Your task to perform on an android device: Open the calendar app, open the side menu, and click the "Day" option Image 0: 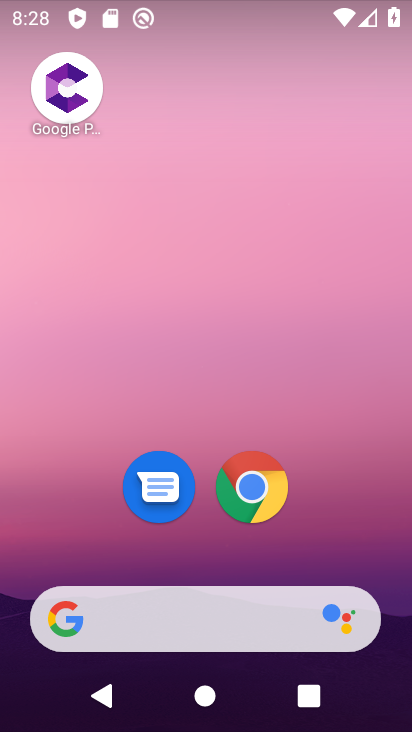
Step 0: drag from (230, 623) to (259, 199)
Your task to perform on an android device: Open the calendar app, open the side menu, and click the "Day" option Image 1: 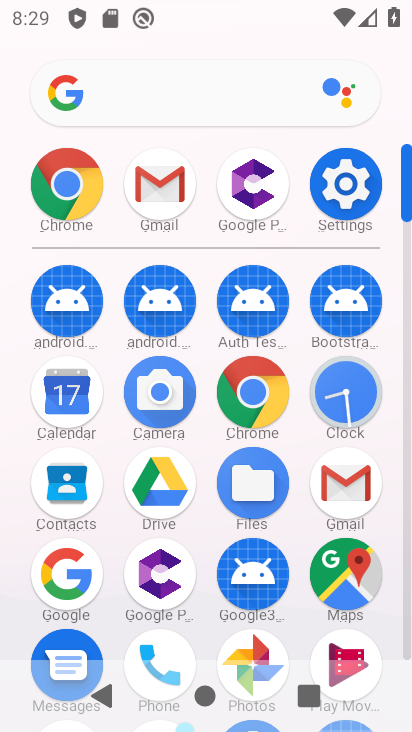
Step 1: click (57, 378)
Your task to perform on an android device: Open the calendar app, open the side menu, and click the "Day" option Image 2: 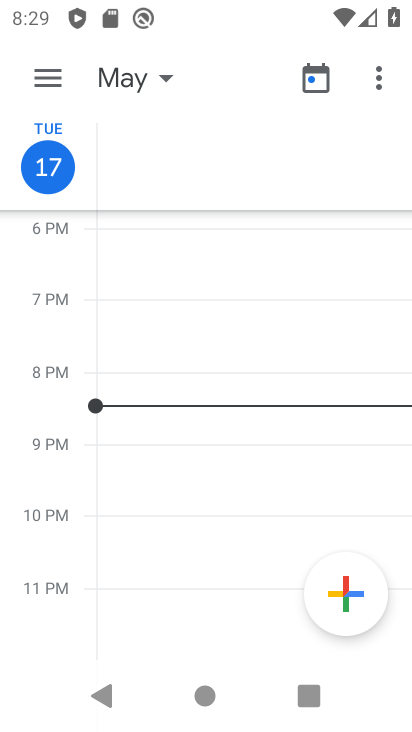
Step 2: click (58, 71)
Your task to perform on an android device: Open the calendar app, open the side menu, and click the "Day" option Image 3: 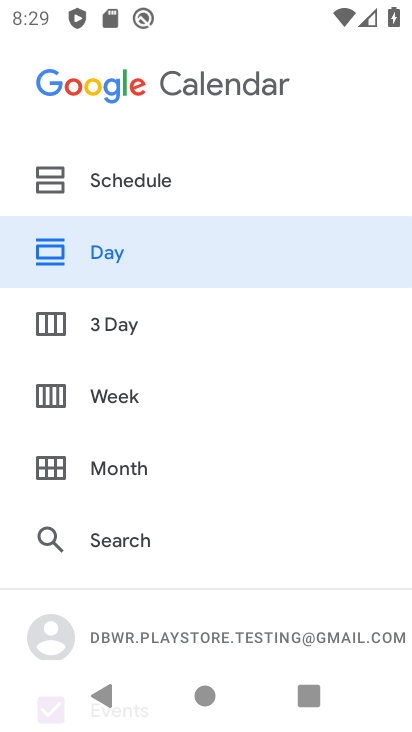
Step 3: click (127, 244)
Your task to perform on an android device: Open the calendar app, open the side menu, and click the "Day" option Image 4: 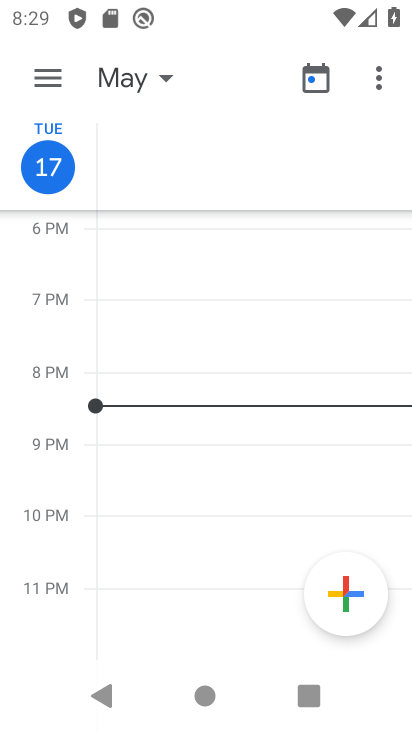
Step 4: task complete